Your task to perform on an android device: turn notification dots off Image 0: 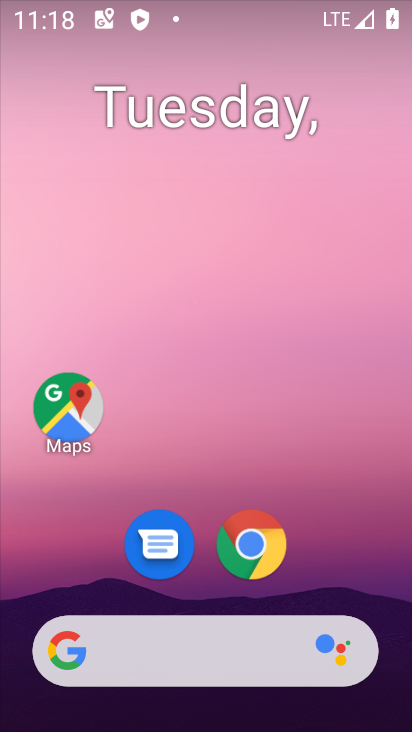
Step 0: drag from (385, 628) to (261, 25)
Your task to perform on an android device: turn notification dots off Image 1: 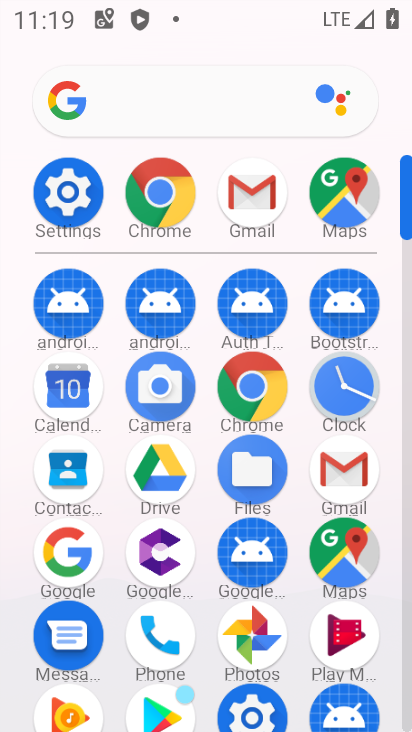
Step 1: click (69, 178)
Your task to perform on an android device: turn notification dots off Image 2: 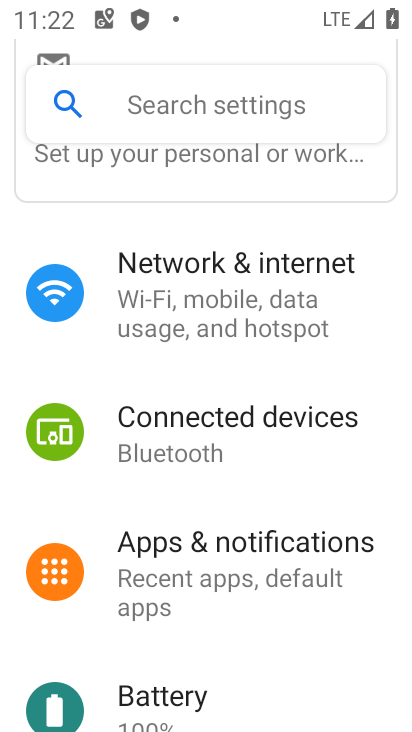
Step 2: click (213, 586)
Your task to perform on an android device: turn notification dots off Image 3: 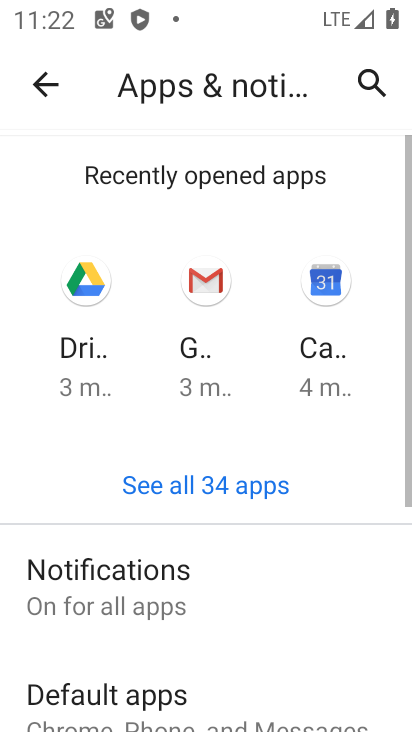
Step 3: click (225, 577)
Your task to perform on an android device: turn notification dots off Image 4: 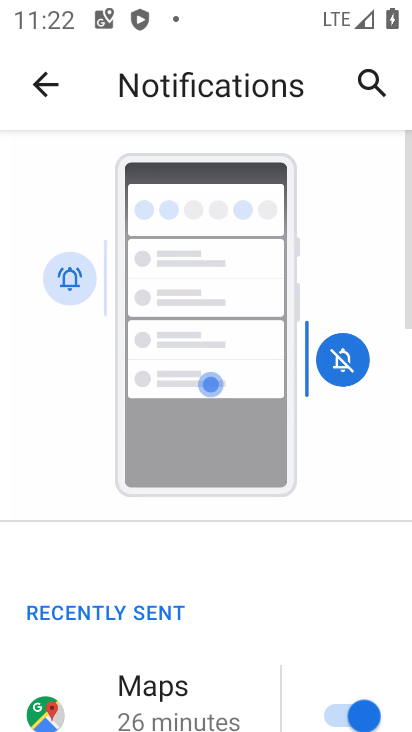
Step 4: drag from (181, 691) to (148, 103)
Your task to perform on an android device: turn notification dots off Image 5: 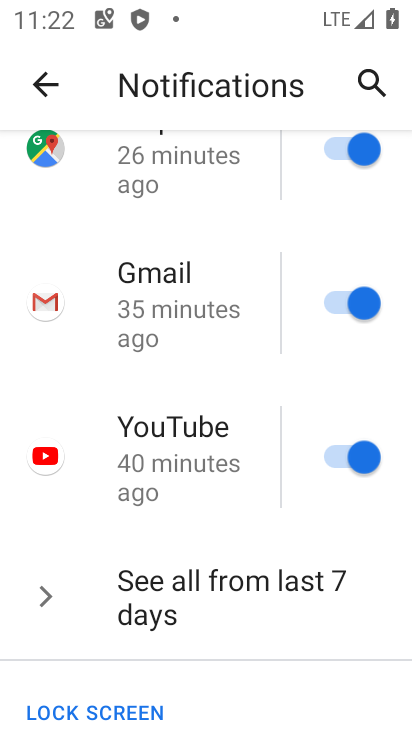
Step 5: drag from (195, 662) to (219, 167)
Your task to perform on an android device: turn notification dots off Image 6: 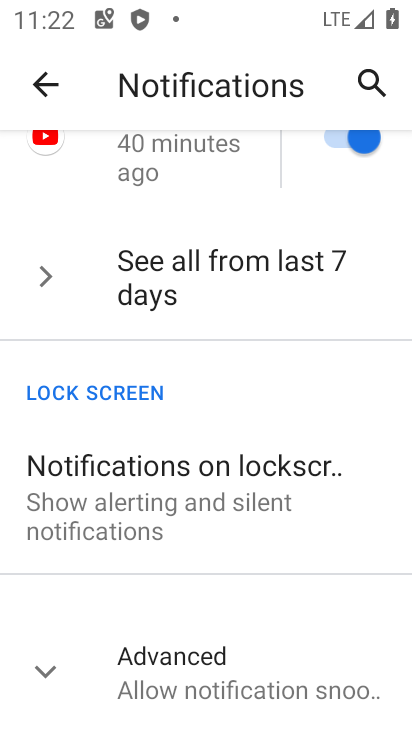
Step 6: click (58, 686)
Your task to perform on an android device: turn notification dots off Image 7: 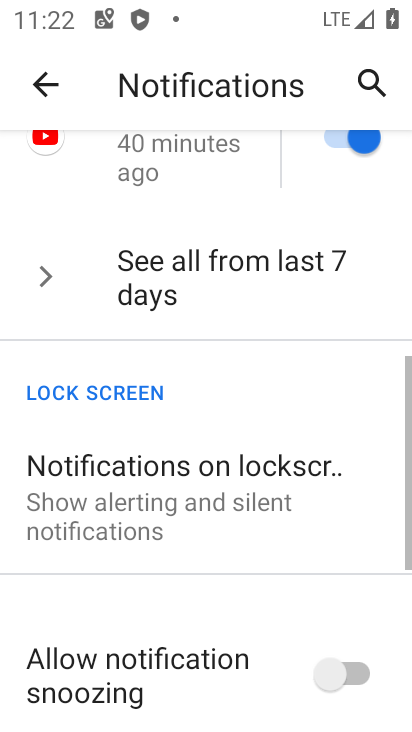
Step 7: drag from (58, 686) to (153, 169)
Your task to perform on an android device: turn notification dots off Image 8: 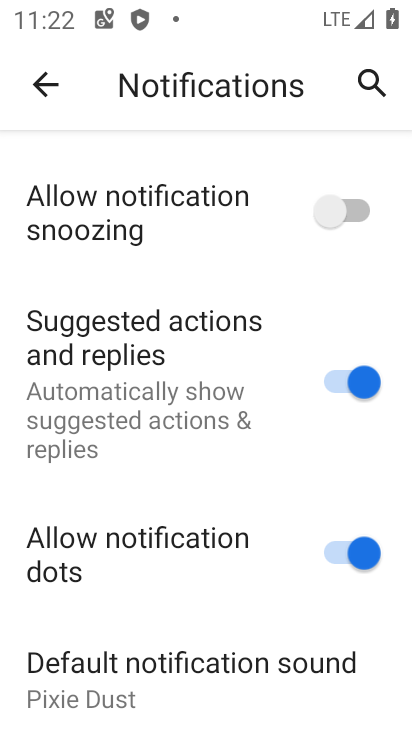
Step 8: click (322, 560)
Your task to perform on an android device: turn notification dots off Image 9: 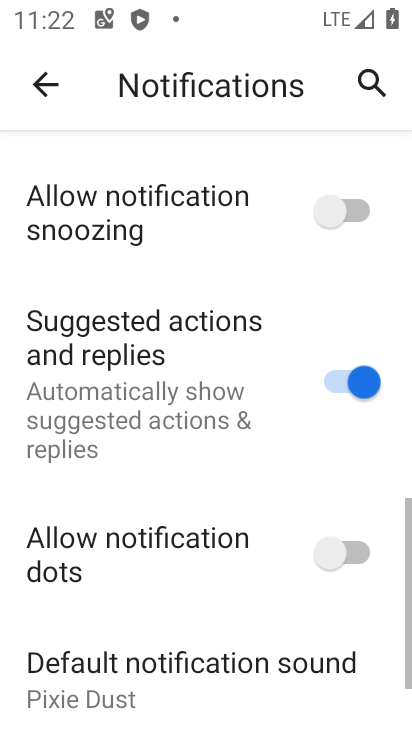
Step 9: task complete